Your task to perform on an android device: open the mobile data screen to see how much data has been used Image 0: 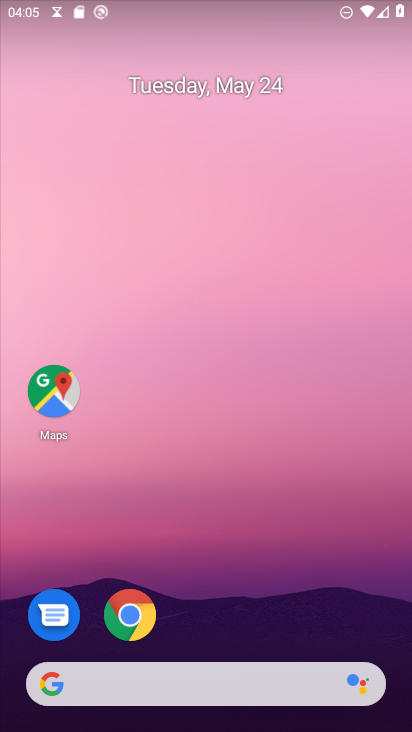
Step 0: drag from (241, 547) to (210, 56)
Your task to perform on an android device: open the mobile data screen to see how much data has been used Image 1: 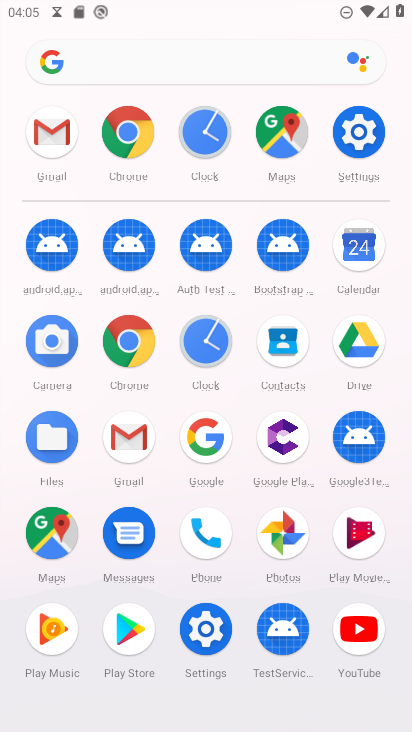
Step 1: click (357, 129)
Your task to perform on an android device: open the mobile data screen to see how much data has been used Image 2: 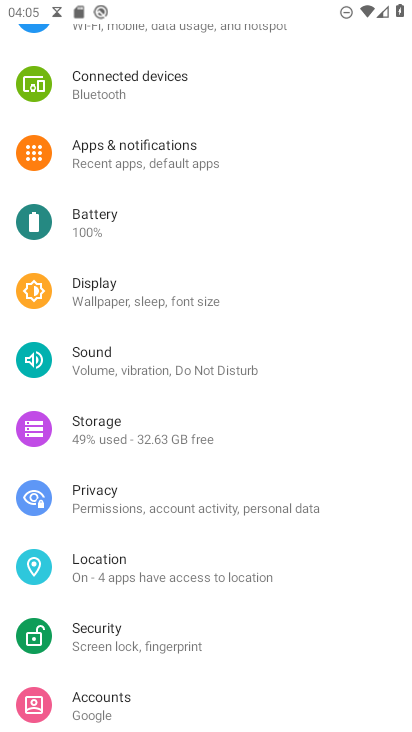
Step 2: drag from (210, 110) to (144, 652)
Your task to perform on an android device: open the mobile data screen to see how much data has been used Image 3: 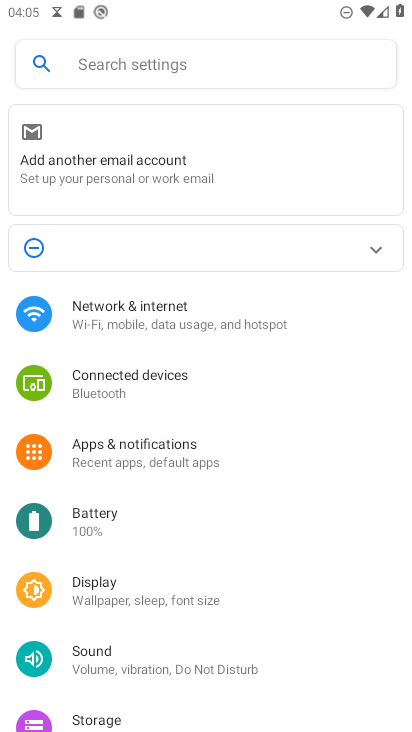
Step 3: click (169, 317)
Your task to perform on an android device: open the mobile data screen to see how much data has been used Image 4: 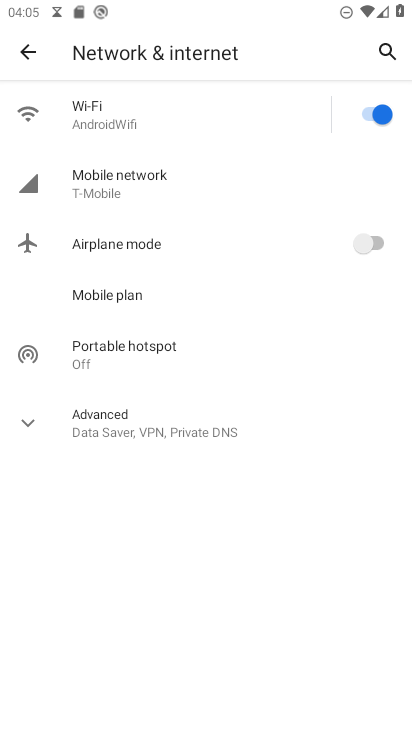
Step 4: click (161, 212)
Your task to perform on an android device: open the mobile data screen to see how much data has been used Image 5: 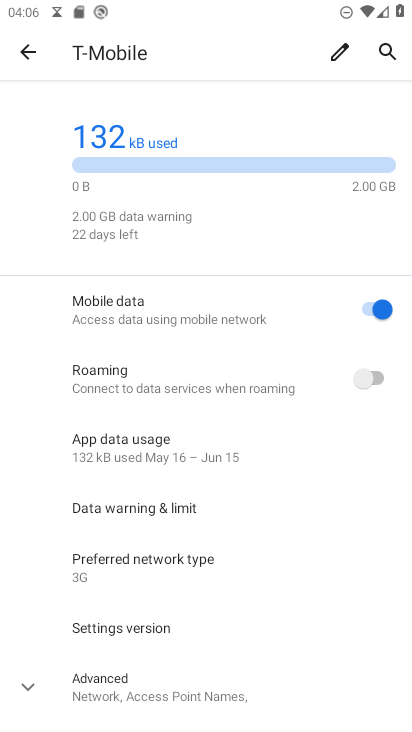
Step 5: task complete